Your task to perform on an android device: empty trash in google photos Image 0: 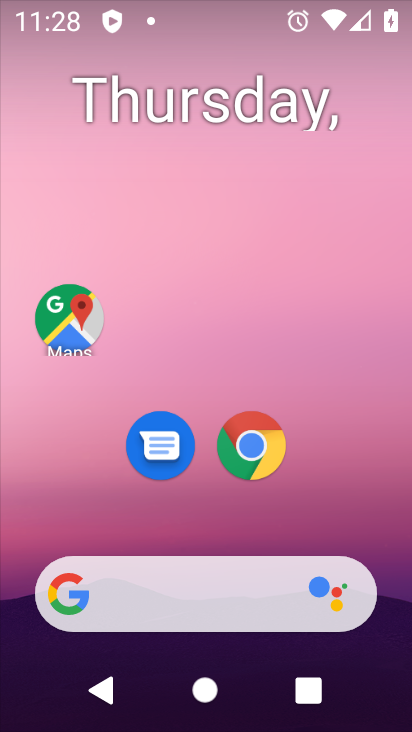
Step 0: drag from (349, 448) to (359, 0)
Your task to perform on an android device: empty trash in google photos Image 1: 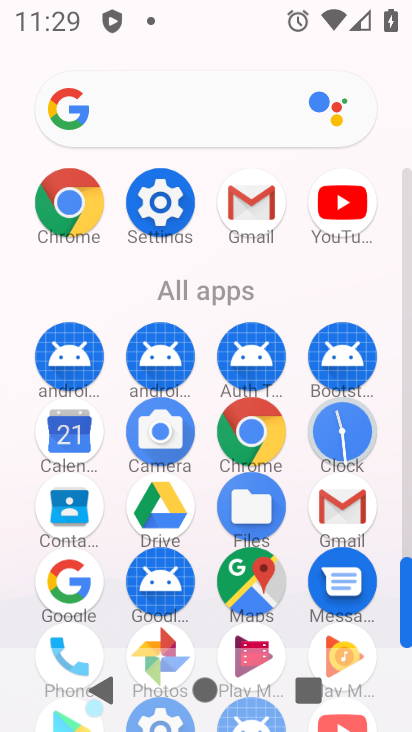
Step 1: drag from (397, 510) to (411, 148)
Your task to perform on an android device: empty trash in google photos Image 2: 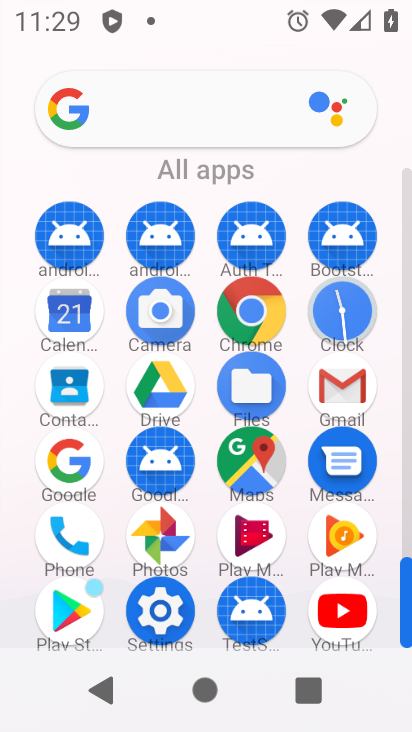
Step 2: click (144, 522)
Your task to perform on an android device: empty trash in google photos Image 3: 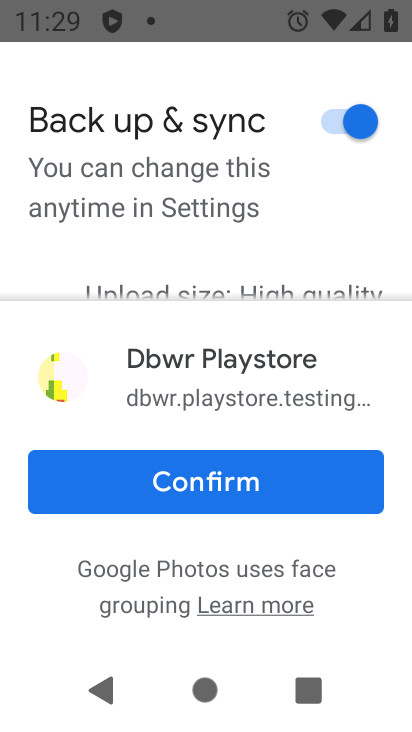
Step 3: click (193, 483)
Your task to perform on an android device: empty trash in google photos Image 4: 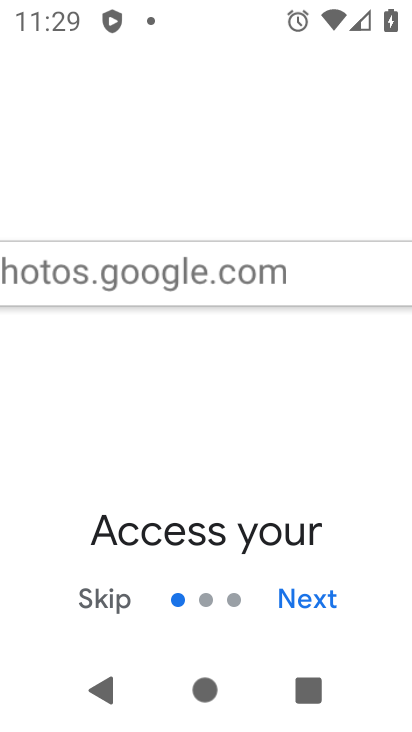
Step 4: click (320, 593)
Your task to perform on an android device: empty trash in google photos Image 5: 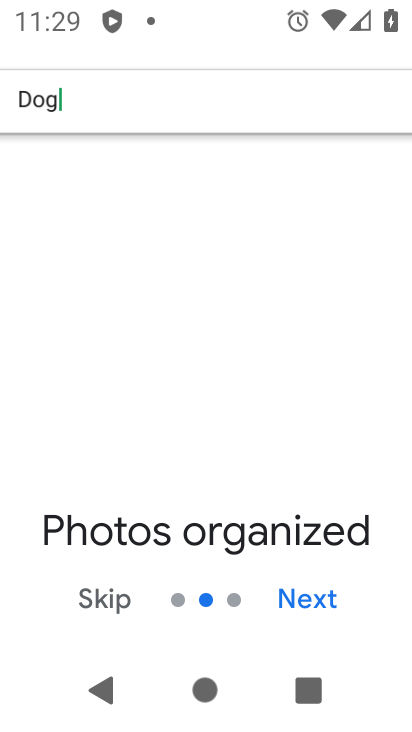
Step 5: click (320, 592)
Your task to perform on an android device: empty trash in google photos Image 6: 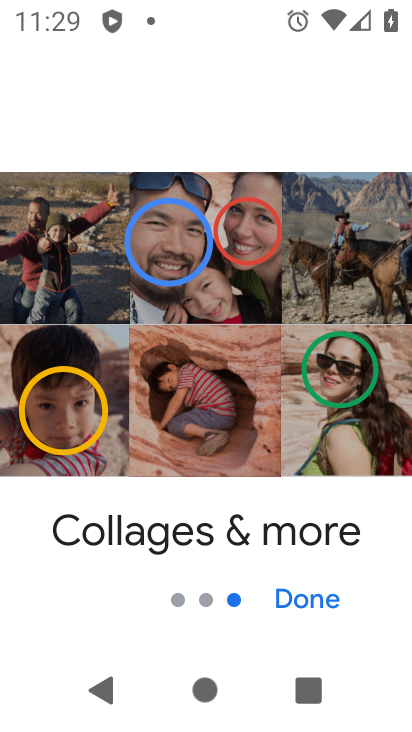
Step 6: click (320, 592)
Your task to perform on an android device: empty trash in google photos Image 7: 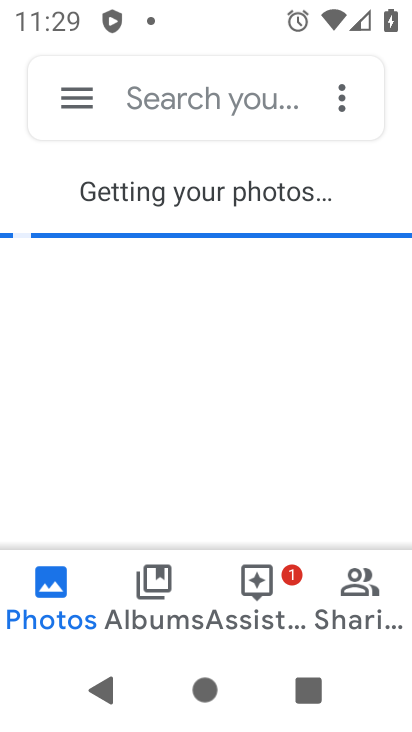
Step 7: click (88, 88)
Your task to perform on an android device: empty trash in google photos Image 8: 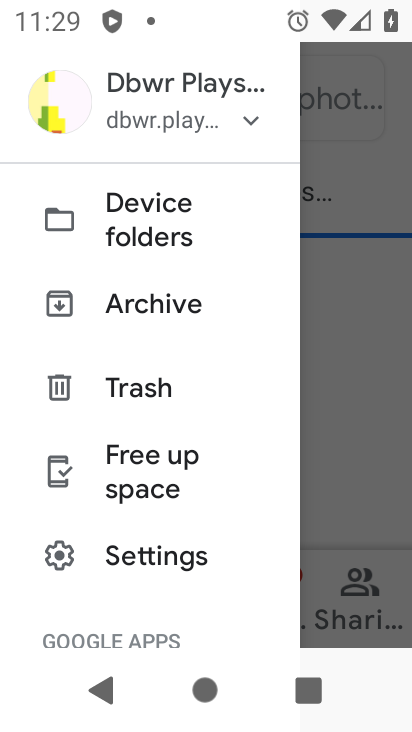
Step 8: click (146, 403)
Your task to perform on an android device: empty trash in google photos Image 9: 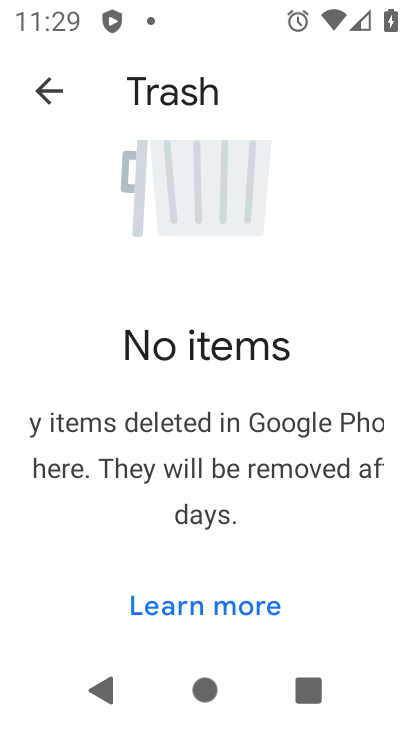
Step 9: task complete